Your task to perform on an android device: toggle wifi Image 0: 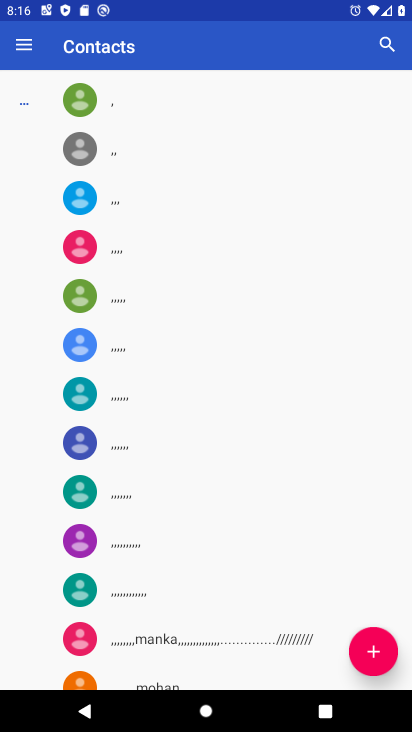
Step 0: press home button
Your task to perform on an android device: toggle wifi Image 1: 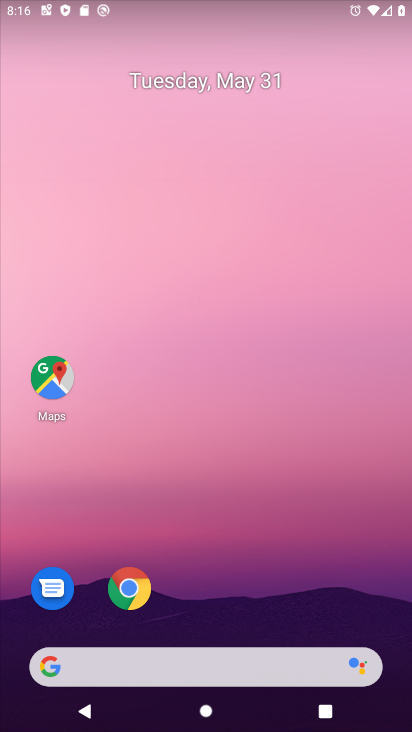
Step 1: drag from (234, 616) to (279, 241)
Your task to perform on an android device: toggle wifi Image 2: 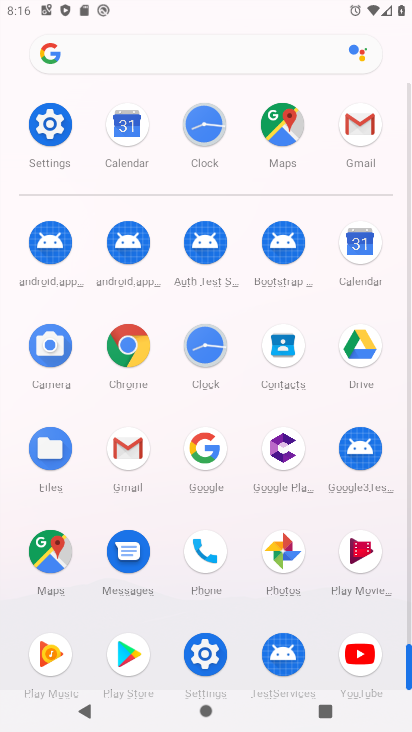
Step 2: click (204, 656)
Your task to perform on an android device: toggle wifi Image 3: 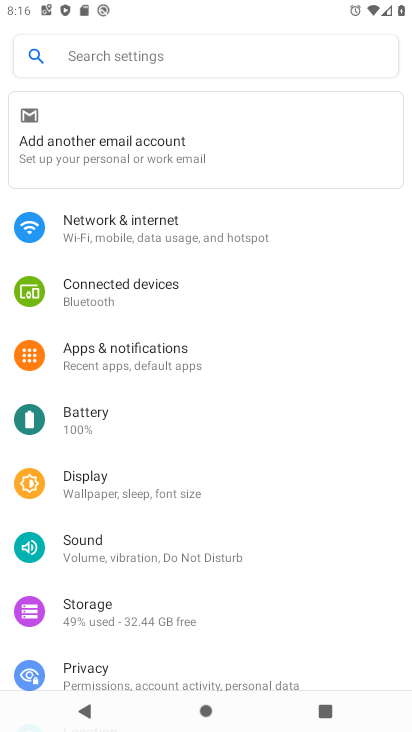
Step 3: click (195, 235)
Your task to perform on an android device: toggle wifi Image 4: 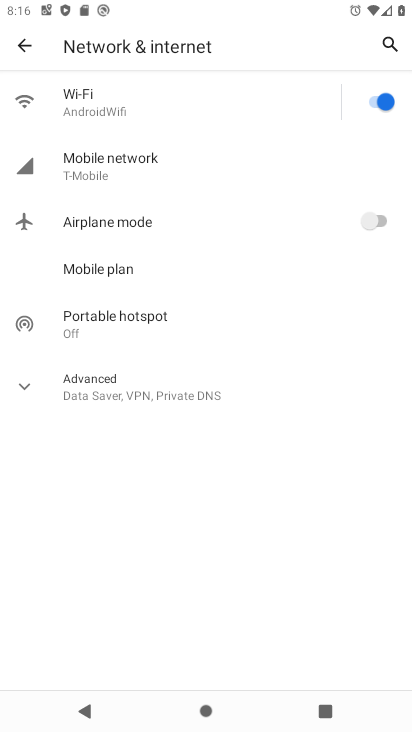
Step 4: click (360, 91)
Your task to perform on an android device: toggle wifi Image 5: 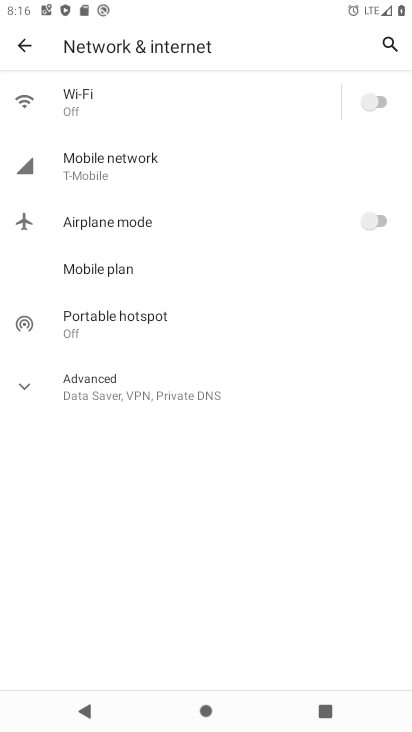
Step 5: task complete